Your task to perform on an android device: turn off priority inbox in the gmail app Image 0: 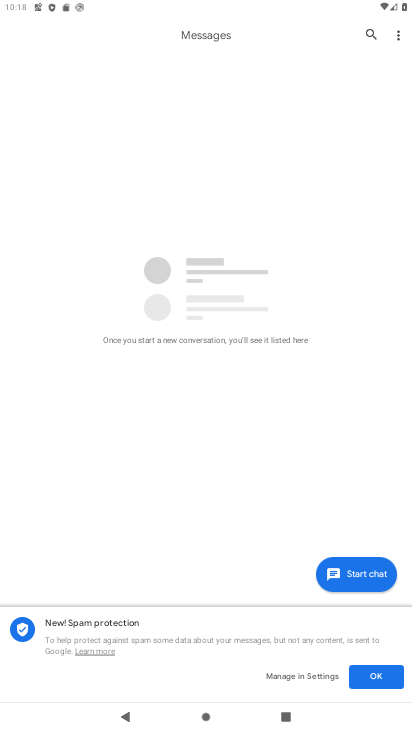
Step 0: press home button
Your task to perform on an android device: turn off priority inbox in the gmail app Image 1: 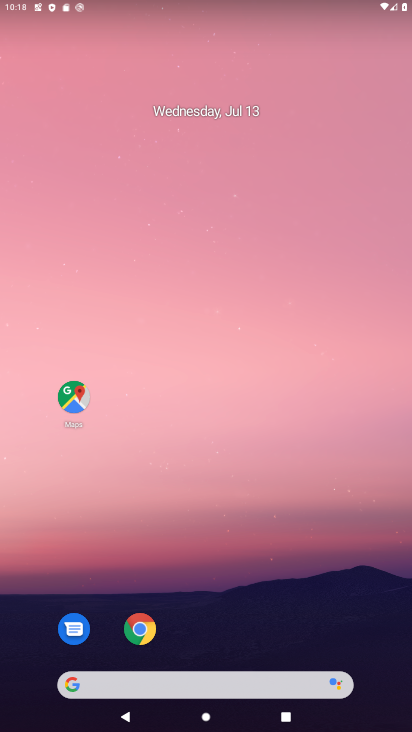
Step 1: drag from (228, 657) to (224, 41)
Your task to perform on an android device: turn off priority inbox in the gmail app Image 2: 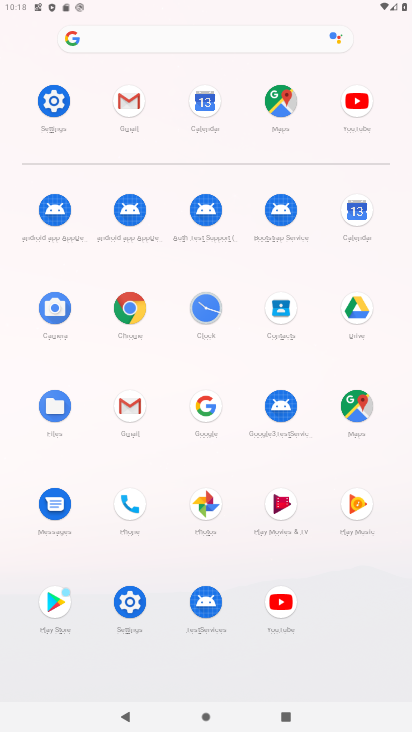
Step 2: click (129, 400)
Your task to perform on an android device: turn off priority inbox in the gmail app Image 3: 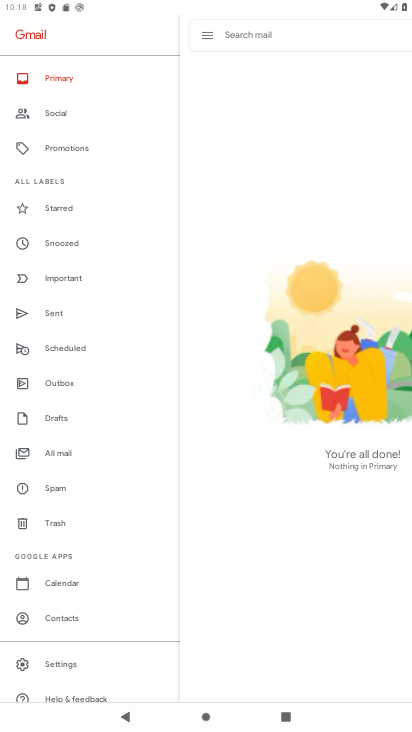
Step 3: click (87, 660)
Your task to perform on an android device: turn off priority inbox in the gmail app Image 4: 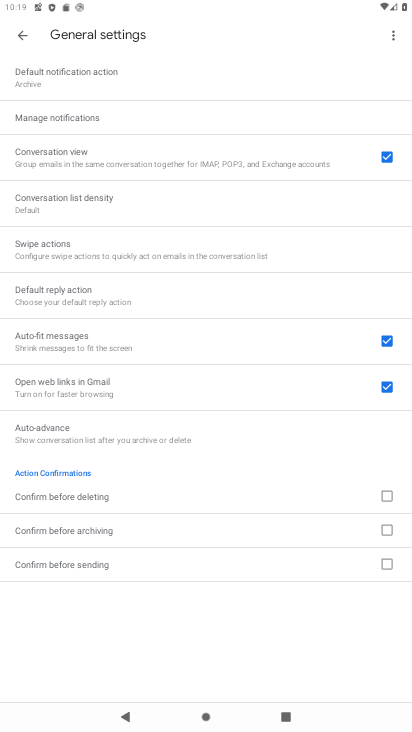
Step 4: click (14, 27)
Your task to perform on an android device: turn off priority inbox in the gmail app Image 5: 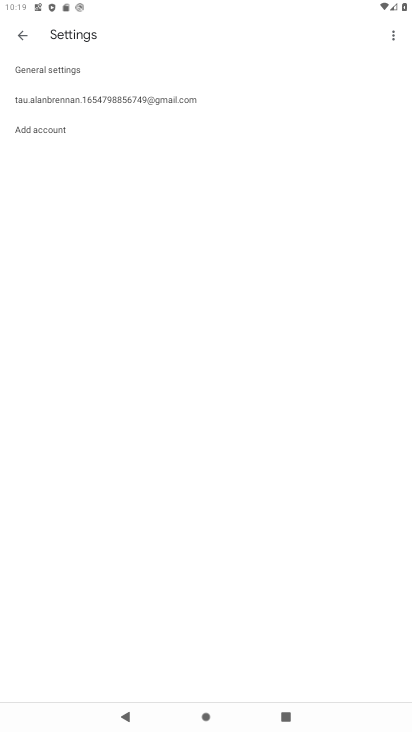
Step 5: click (124, 97)
Your task to perform on an android device: turn off priority inbox in the gmail app Image 6: 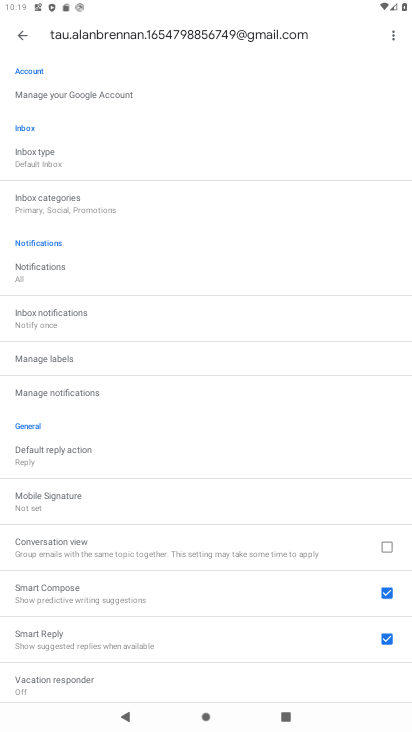
Step 6: click (69, 157)
Your task to perform on an android device: turn off priority inbox in the gmail app Image 7: 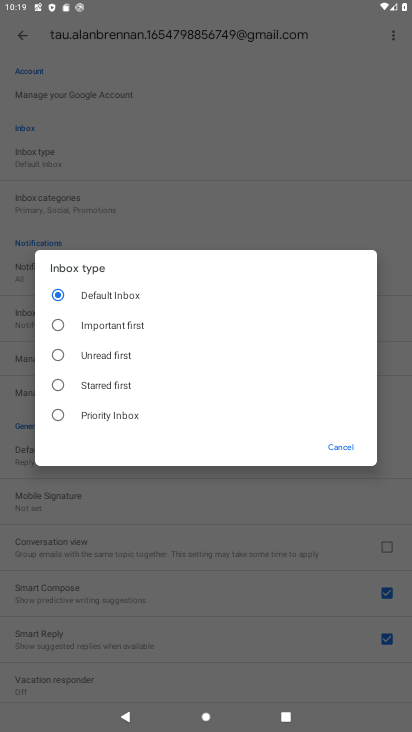
Step 7: click (50, 387)
Your task to perform on an android device: turn off priority inbox in the gmail app Image 8: 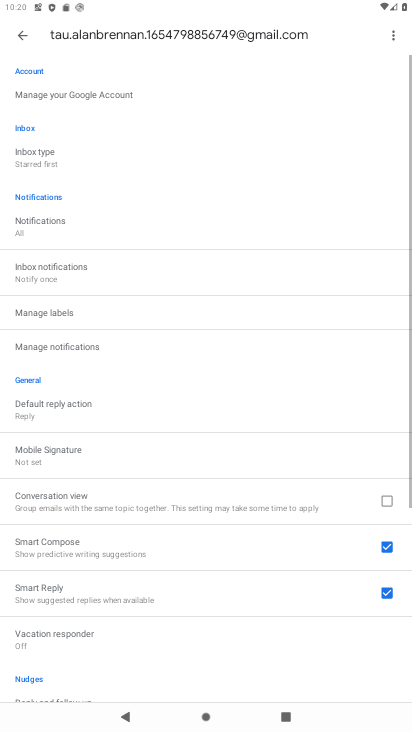
Step 8: task complete